Your task to perform on an android device: manage bookmarks in the chrome app Image 0: 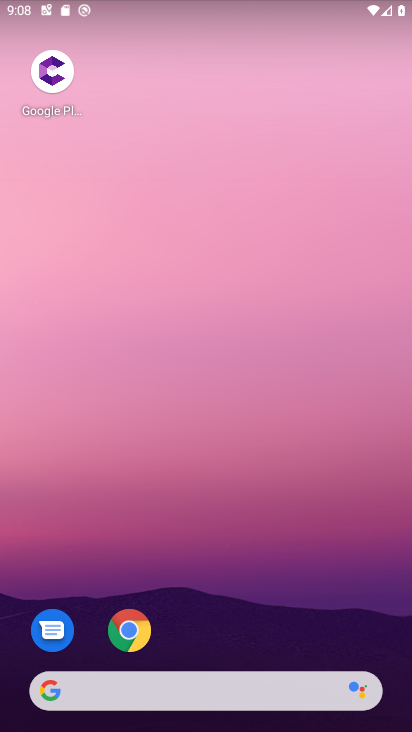
Step 0: drag from (197, 664) to (267, 159)
Your task to perform on an android device: manage bookmarks in the chrome app Image 1: 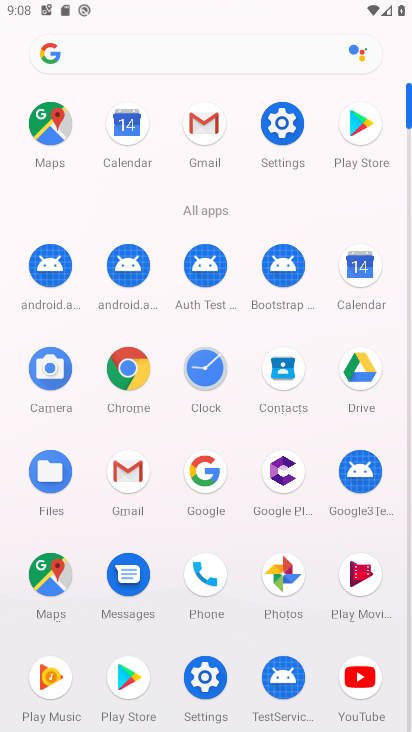
Step 1: click (130, 388)
Your task to perform on an android device: manage bookmarks in the chrome app Image 2: 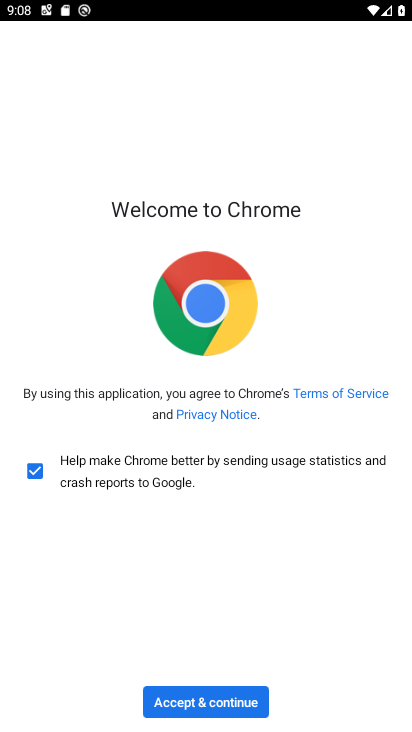
Step 2: click (213, 702)
Your task to perform on an android device: manage bookmarks in the chrome app Image 3: 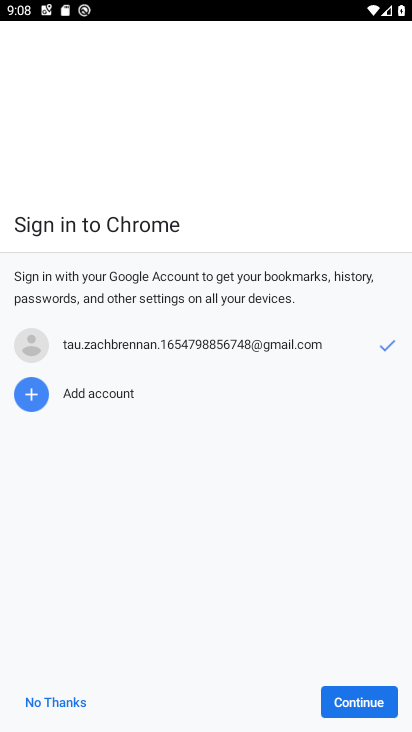
Step 3: click (373, 706)
Your task to perform on an android device: manage bookmarks in the chrome app Image 4: 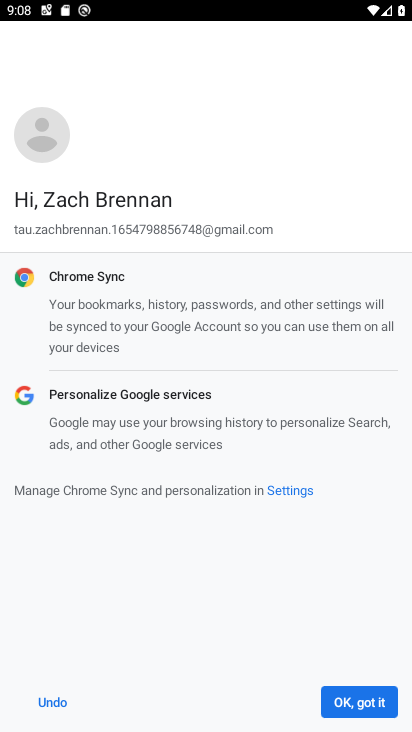
Step 4: click (373, 706)
Your task to perform on an android device: manage bookmarks in the chrome app Image 5: 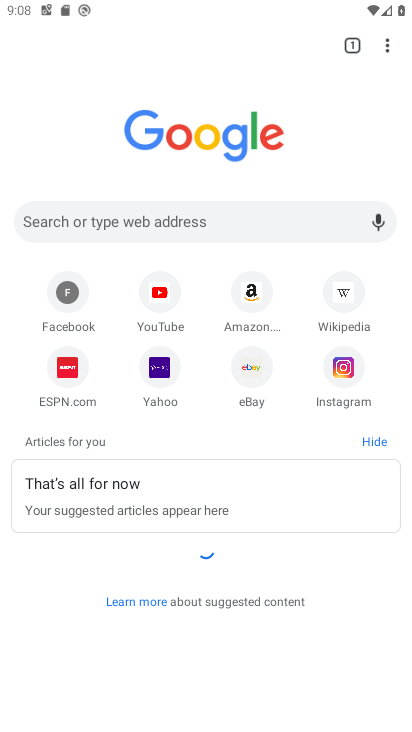
Step 5: drag from (397, 37) to (323, 166)
Your task to perform on an android device: manage bookmarks in the chrome app Image 6: 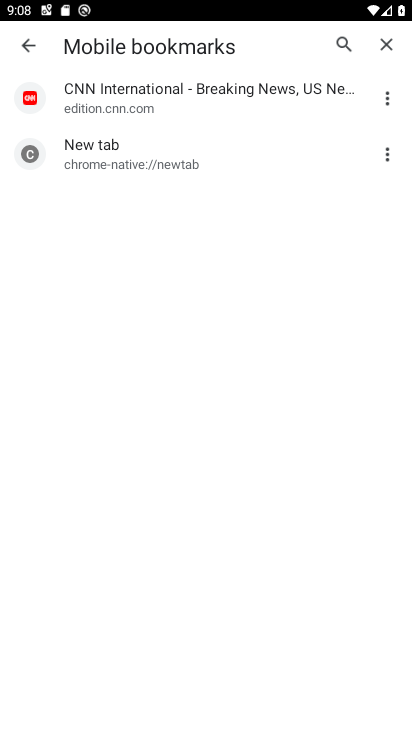
Step 6: drag from (166, 164) to (182, 90)
Your task to perform on an android device: manage bookmarks in the chrome app Image 7: 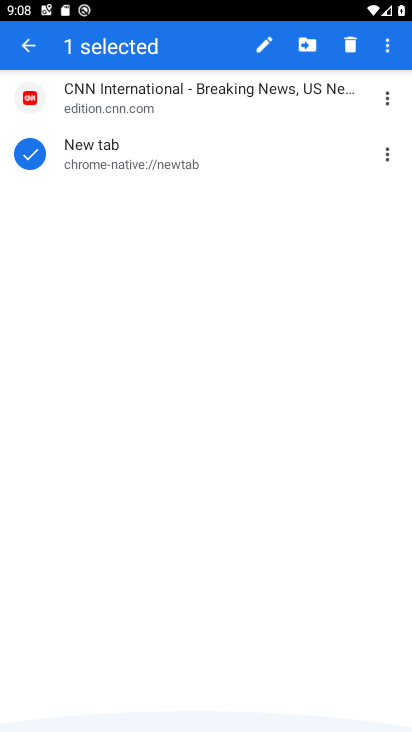
Step 7: click (182, 90)
Your task to perform on an android device: manage bookmarks in the chrome app Image 8: 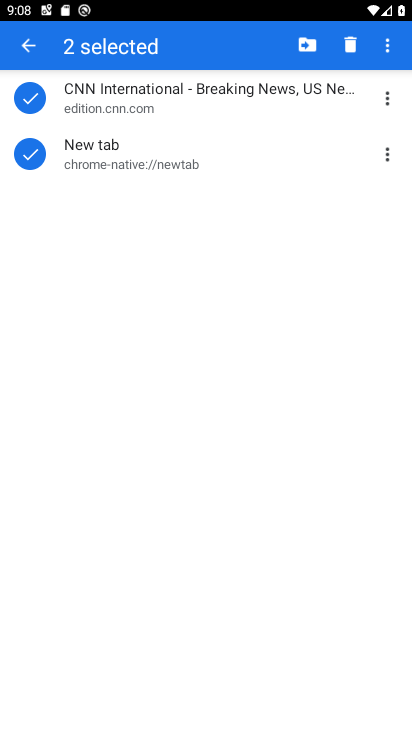
Step 8: click (303, 42)
Your task to perform on an android device: manage bookmarks in the chrome app Image 9: 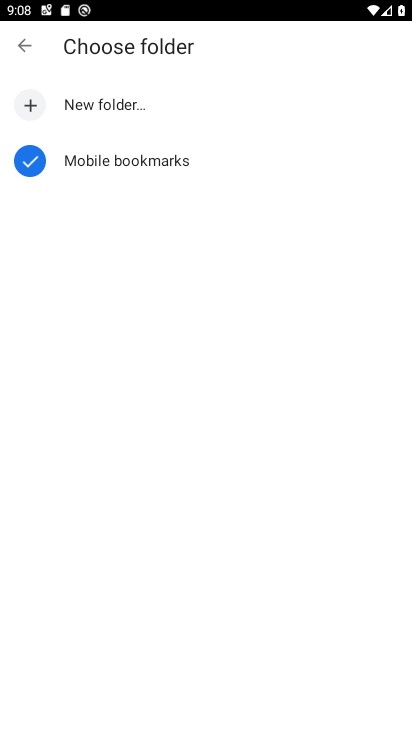
Step 9: click (212, 111)
Your task to perform on an android device: manage bookmarks in the chrome app Image 10: 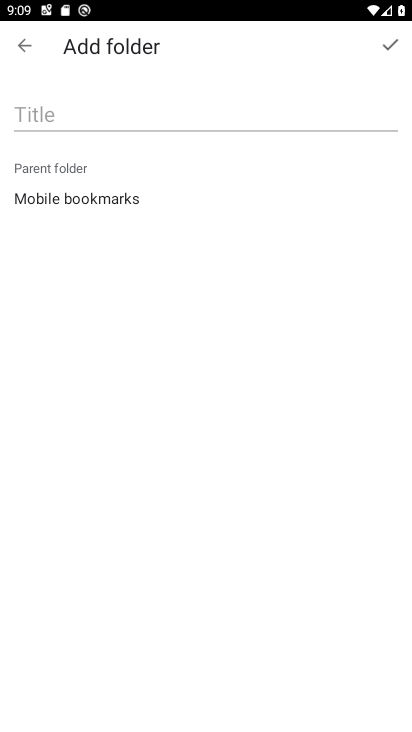
Step 10: type "hh"
Your task to perform on an android device: manage bookmarks in the chrome app Image 11: 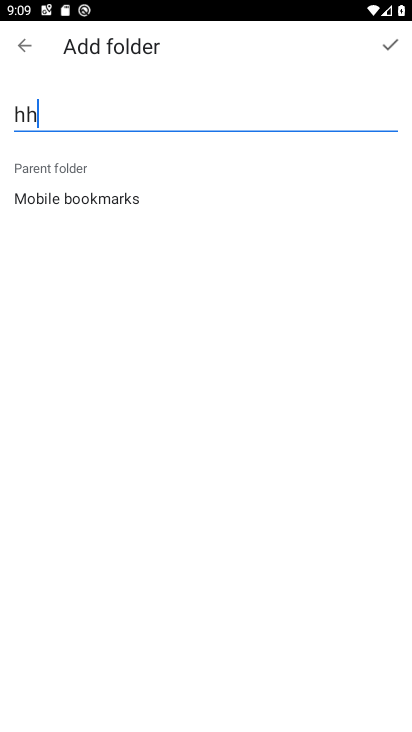
Step 11: click (388, 38)
Your task to perform on an android device: manage bookmarks in the chrome app Image 12: 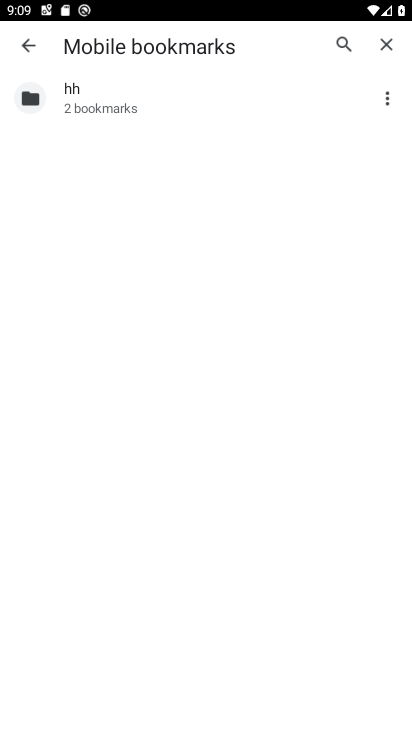
Step 12: task complete